Your task to perform on an android device: Do I have any events tomorrow? Image 0: 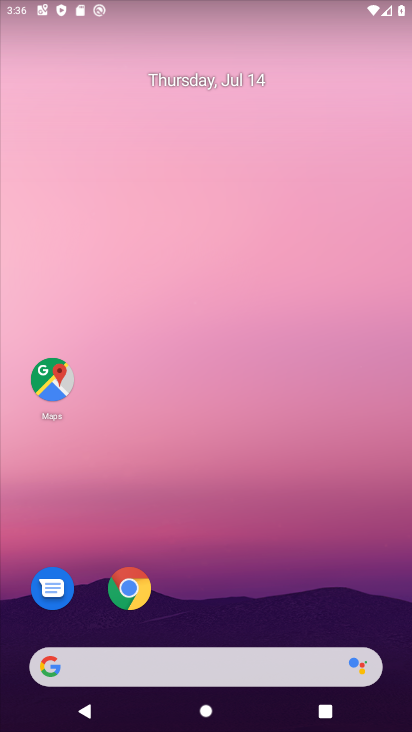
Step 0: drag from (268, 550) to (257, 35)
Your task to perform on an android device: Do I have any events tomorrow? Image 1: 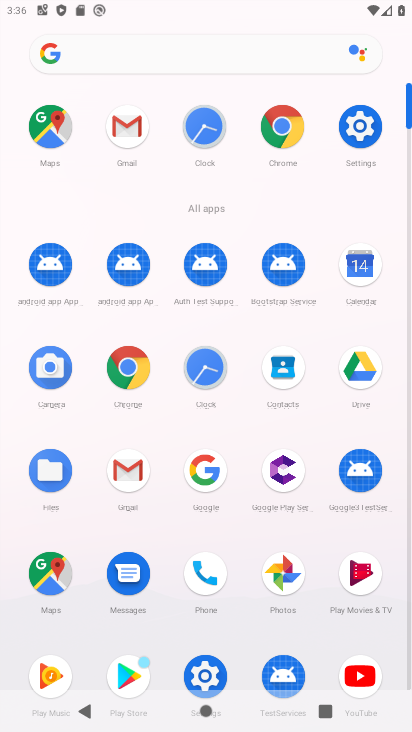
Step 1: click (346, 275)
Your task to perform on an android device: Do I have any events tomorrow? Image 2: 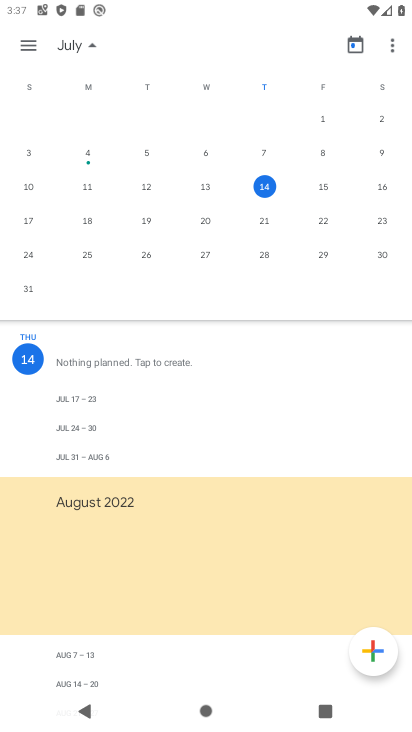
Step 2: click (318, 189)
Your task to perform on an android device: Do I have any events tomorrow? Image 3: 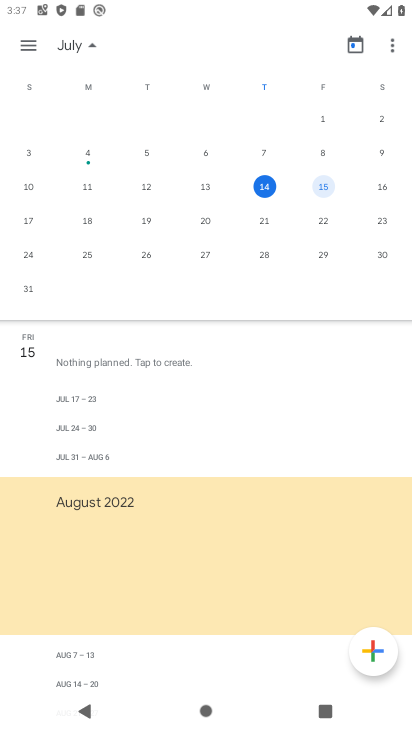
Step 3: task complete